Your task to perform on an android device: change the clock display to show seconds Image 0: 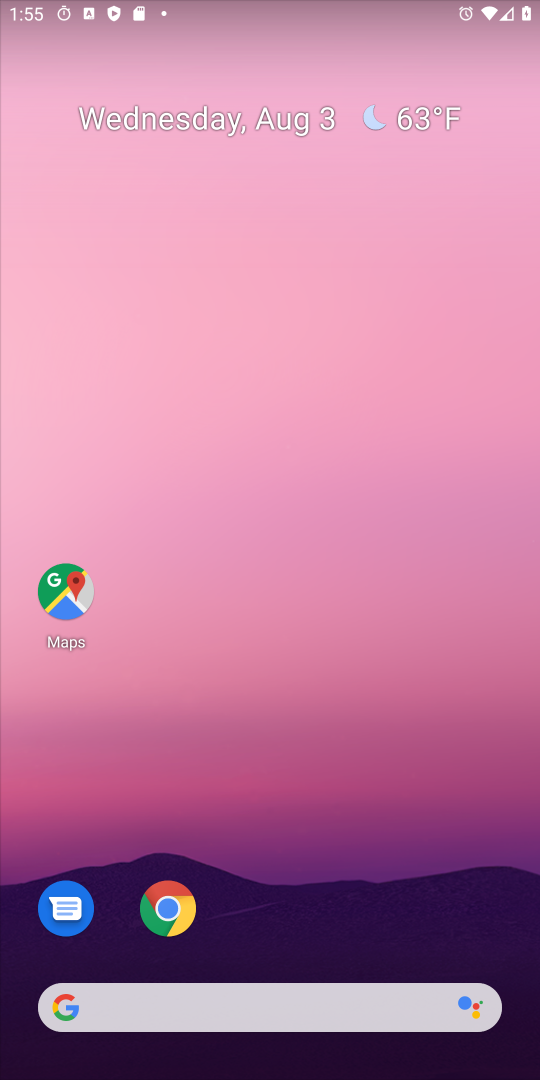
Step 0: drag from (271, 892) to (310, 172)
Your task to perform on an android device: change the clock display to show seconds Image 1: 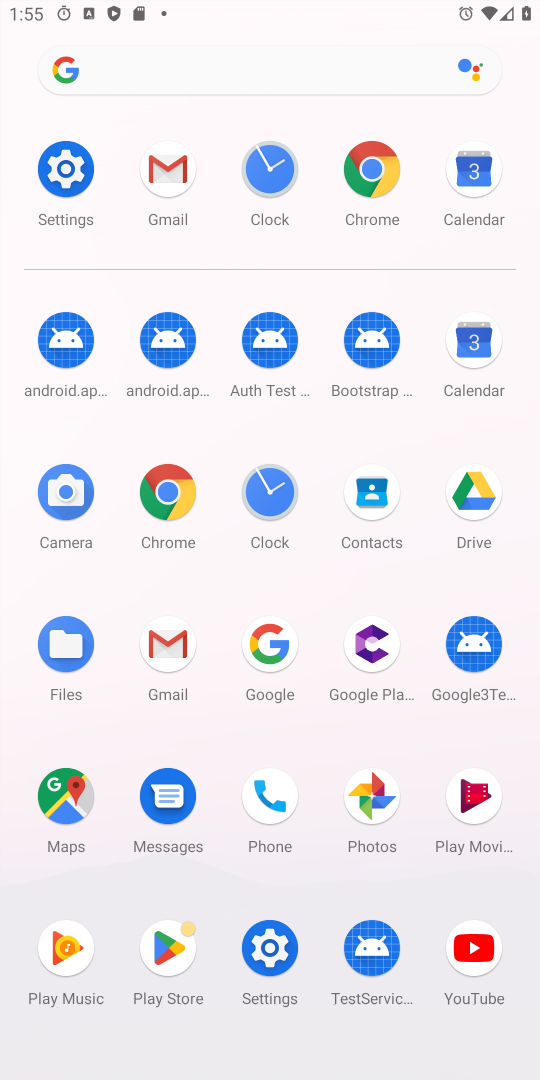
Step 1: click (277, 504)
Your task to perform on an android device: change the clock display to show seconds Image 2: 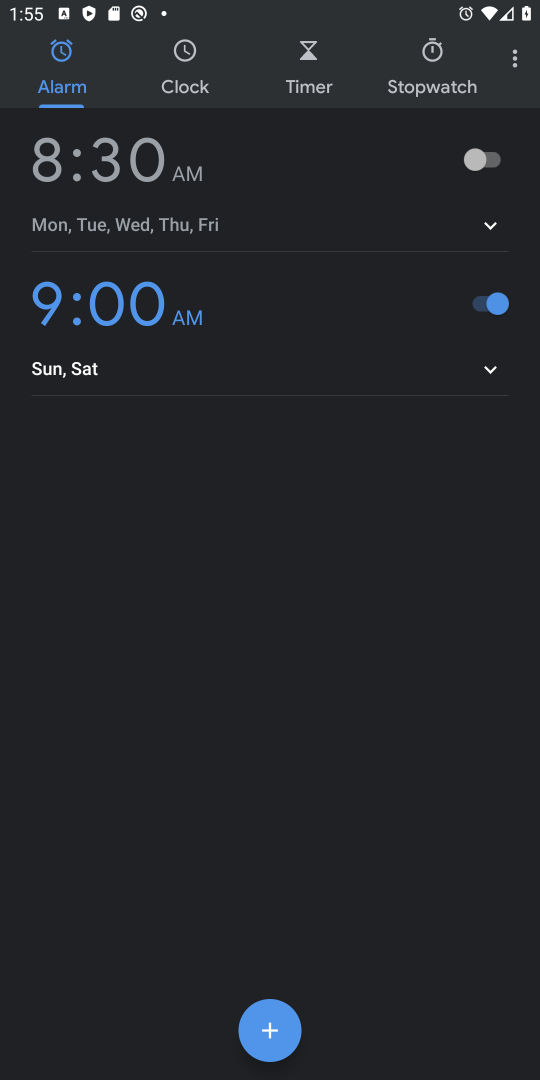
Step 2: click (513, 50)
Your task to perform on an android device: change the clock display to show seconds Image 3: 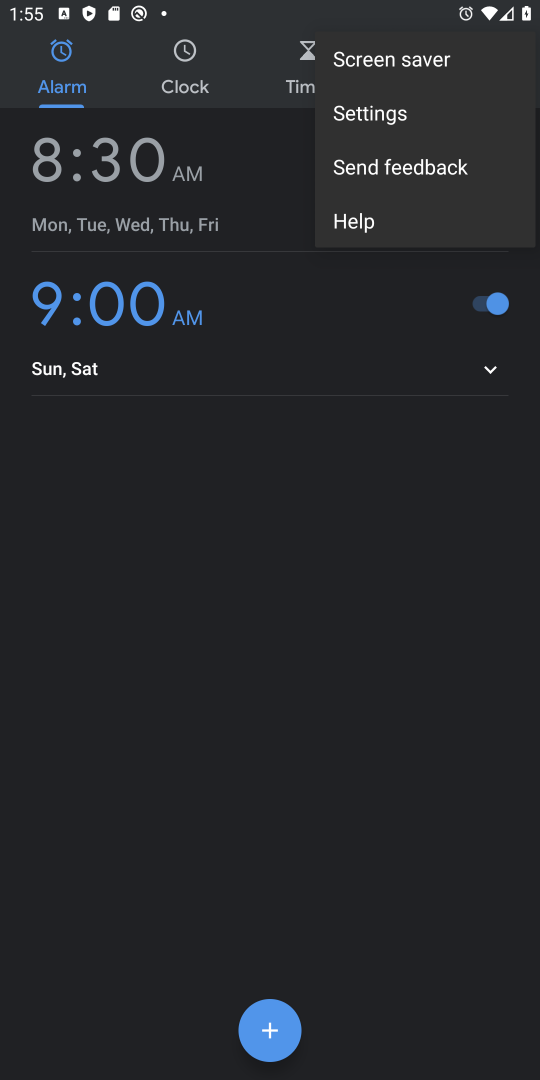
Step 3: click (422, 123)
Your task to perform on an android device: change the clock display to show seconds Image 4: 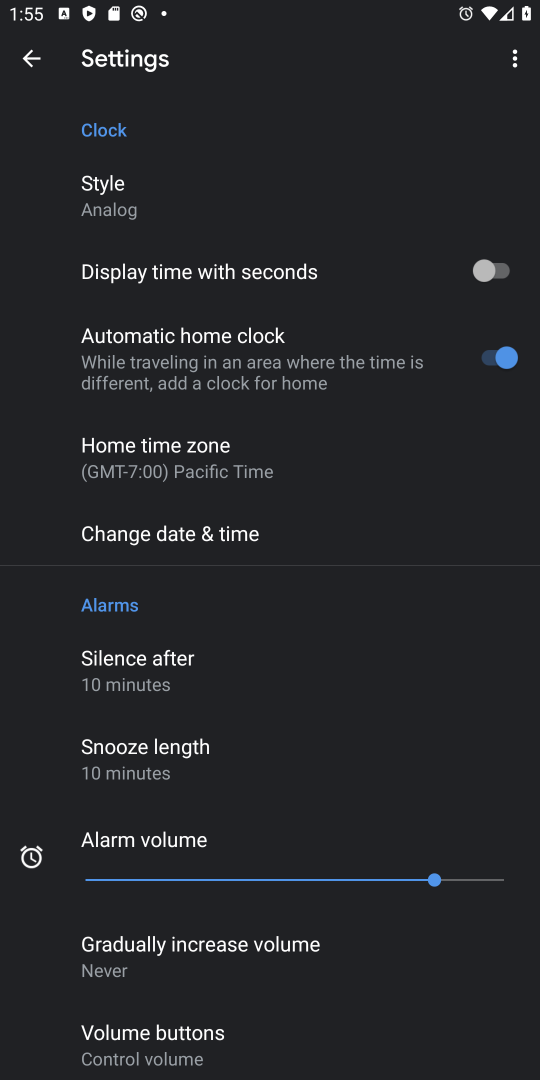
Step 4: click (489, 272)
Your task to perform on an android device: change the clock display to show seconds Image 5: 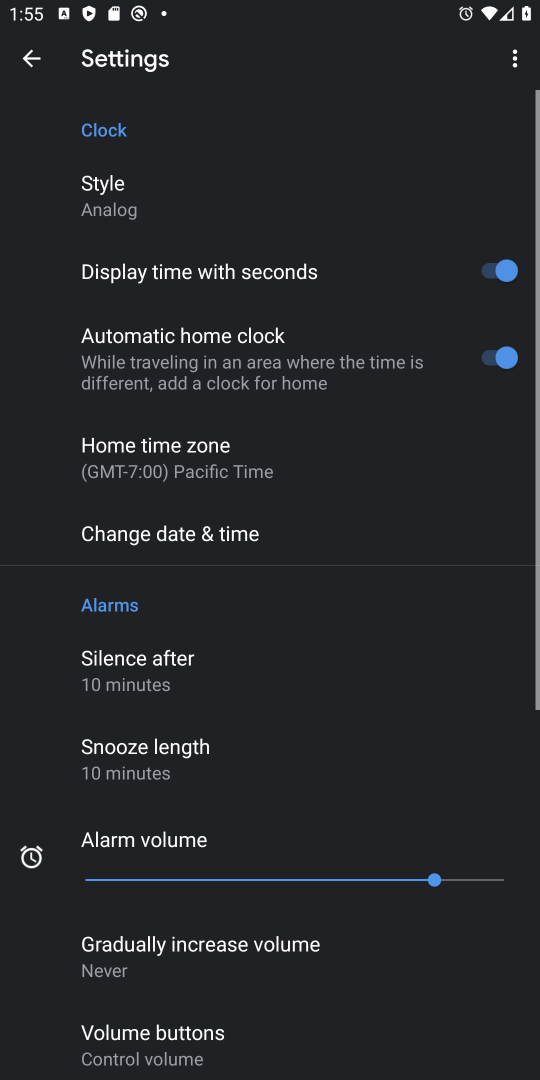
Step 5: task complete